Your task to perform on an android device: Search for top rated burger restaurants on Google Maps Image 0: 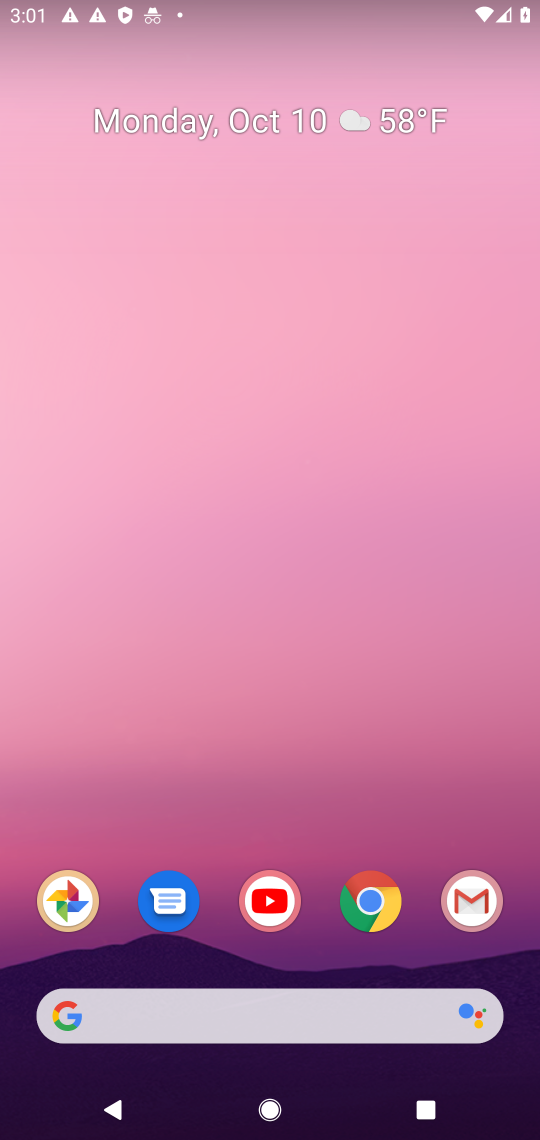
Step 0: drag from (226, 917) to (485, 19)
Your task to perform on an android device: Search for top rated burger restaurants on Google Maps Image 1: 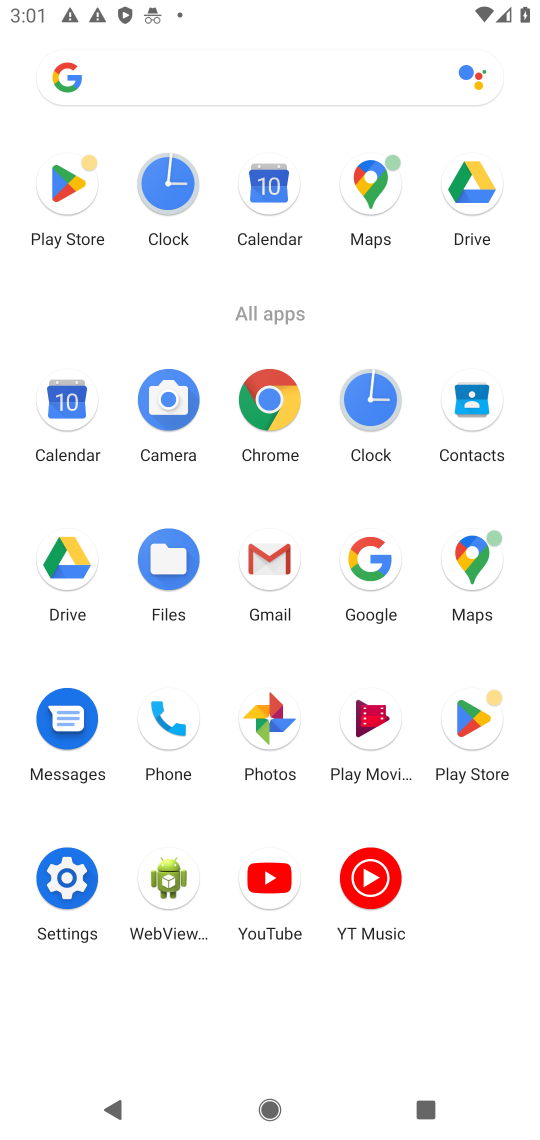
Step 1: click (475, 583)
Your task to perform on an android device: Search for top rated burger restaurants on Google Maps Image 2: 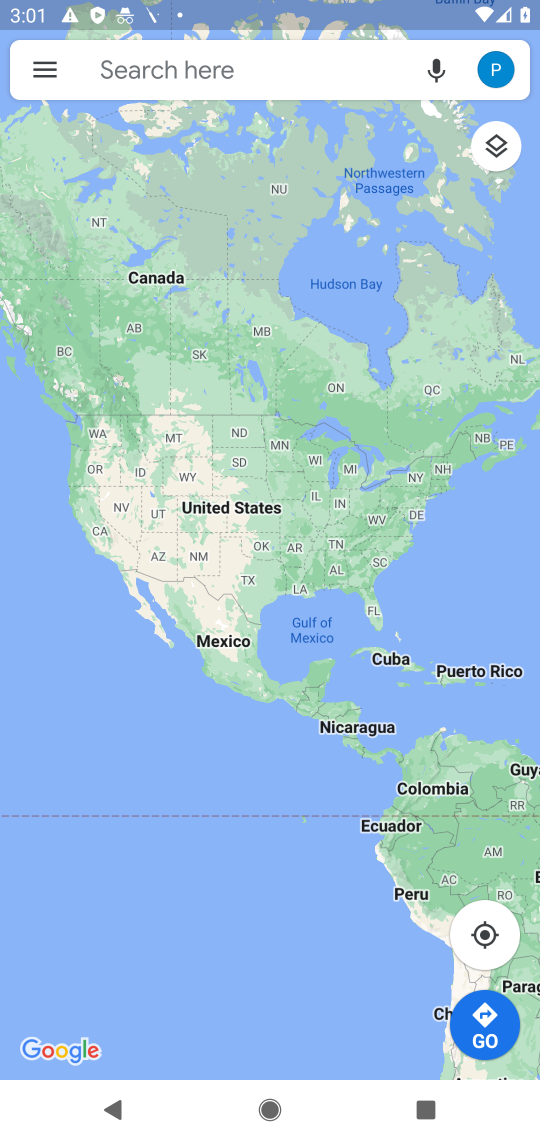
Step 2: click (278, 80)
Your task to perform on an android device: Search for top rated burger restaurants on Google Maps Image 3: 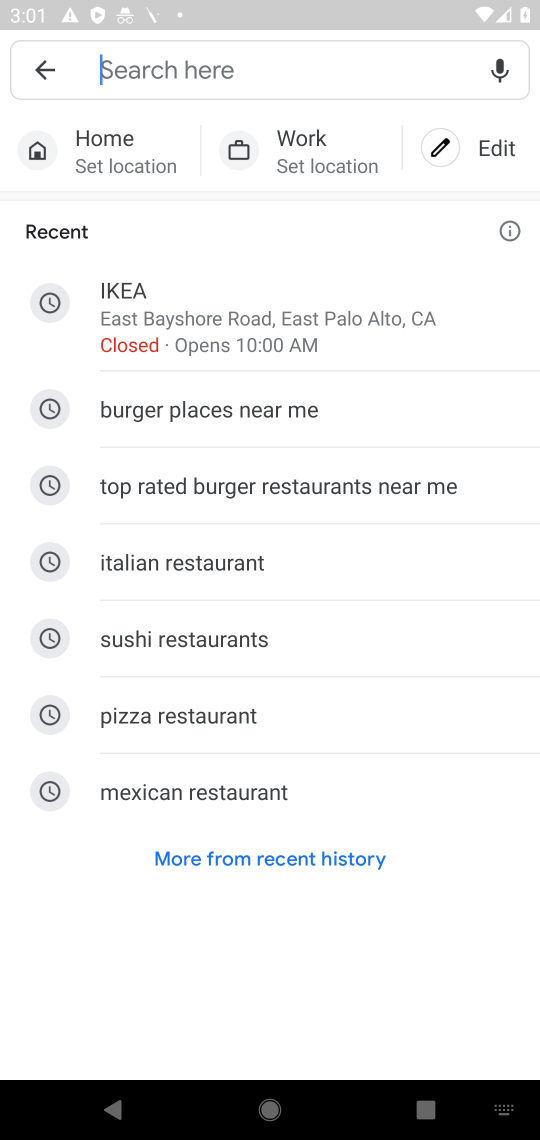
Step 3: type "top rated burger restaurants"
Your task to perform on an android device: Search for top rated burger restaurants on Google Maps Image 4: 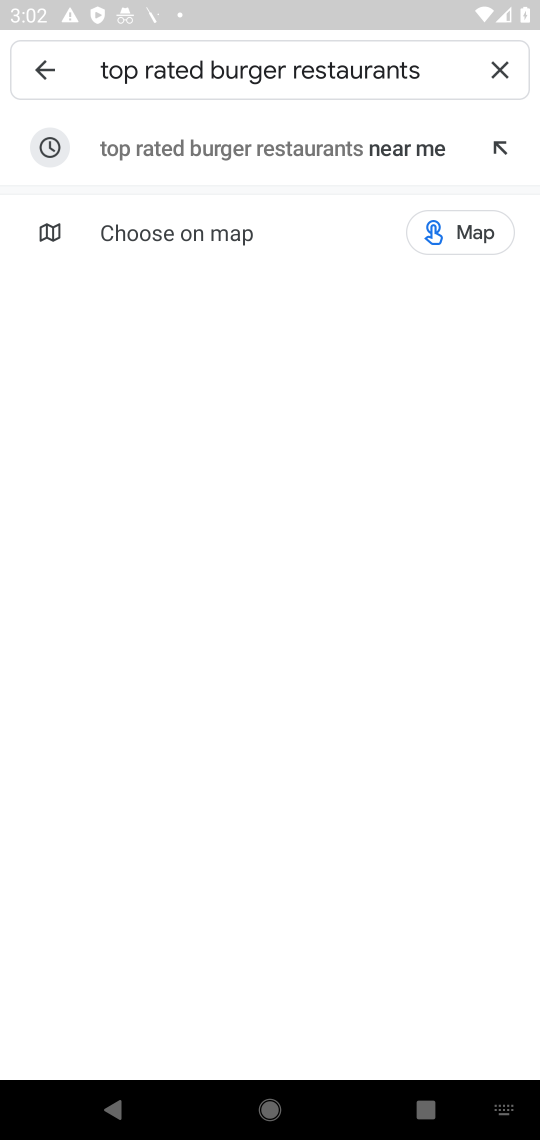
Step 4: click (244, 144)
Your task to perform on an android device: Search for top rated burger restaurants on Google Maps Image 5: 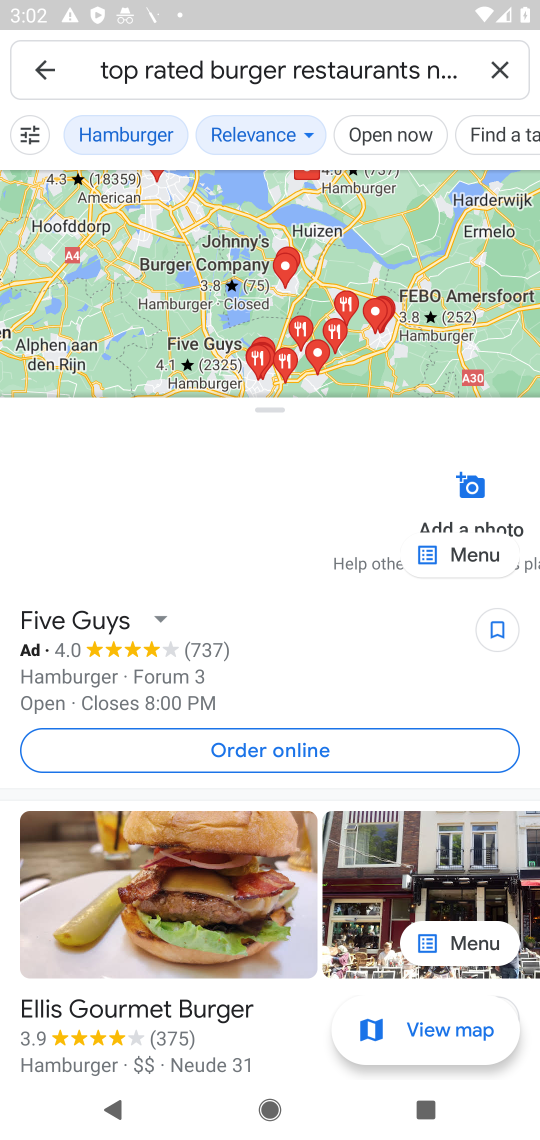
Step 5: task complete